Your task to perform on an android device: turn on data saver in the chrome app Image 0: 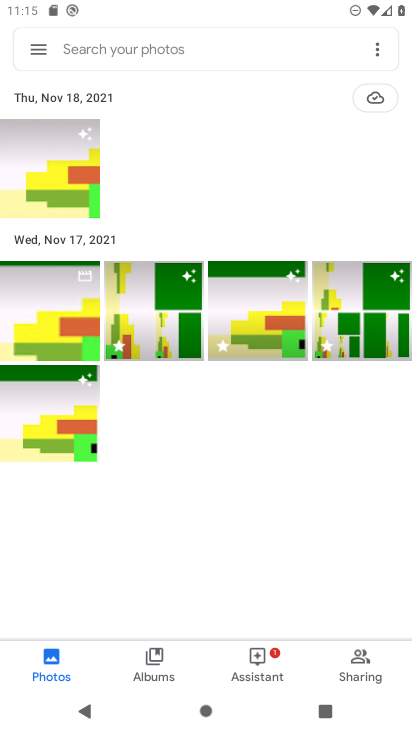
Step 0: press home button
Your task to perform on an android device: turn on data saver in the chrome app Image 1: 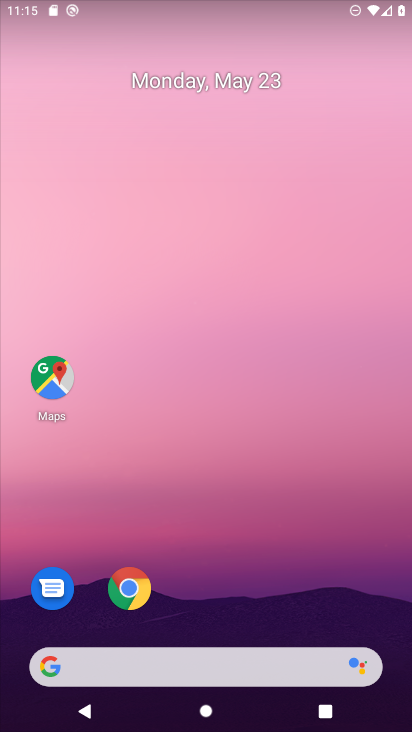
Step 1: click (133, 583)
Your task to perform on an android device: turn on data saver in the chrome app Image 2: 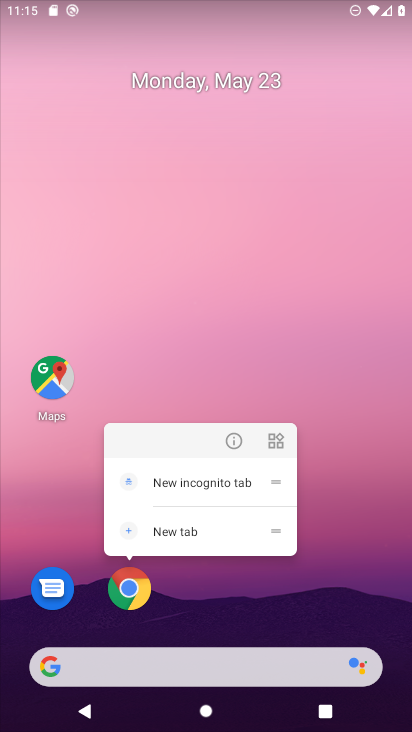
Step 2: click (128, 600)
Your task to perform on an android device: turn on data saver in the chrome app Image 3: 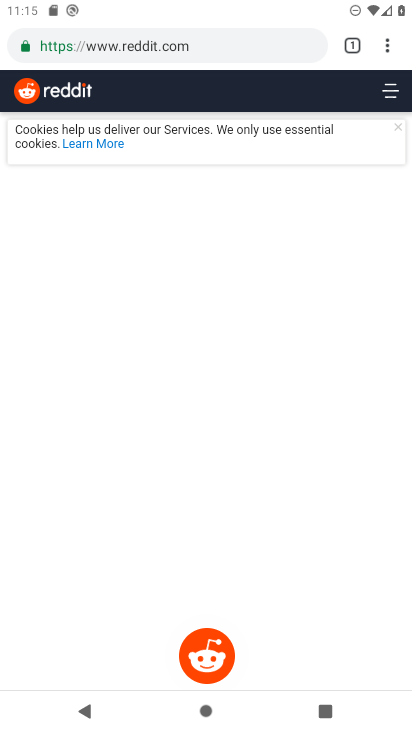
Step 3: click (394, 44)
Your task to perform on an android device: turn on data saver in the chrome app Image 4: 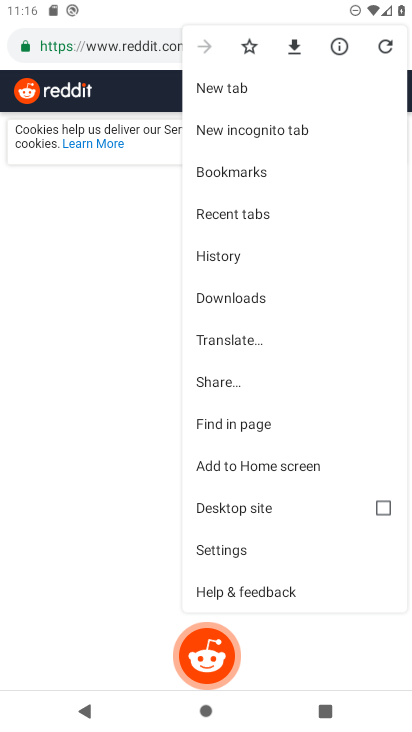
Step 4: click (225, 562)
Your task to perform on an android device: turn on data saver in the chrome app Image 5: 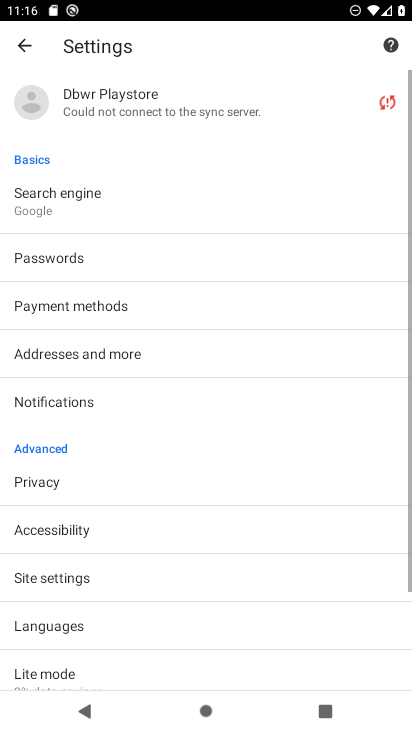
Step 5: drag from (213, 544) to (226, 192)
Your task to perform on an android device: turn on data saver in the chrome app Image 6: 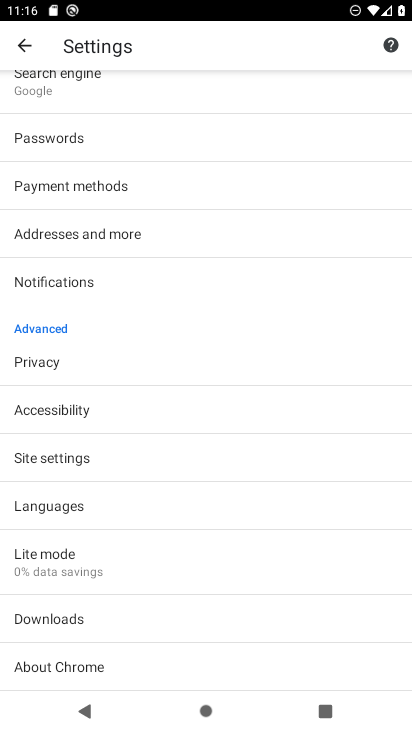
Step 6: click (52, 570)
Your task to perform on an android device: turn on data saver in the chrome app Image 7: 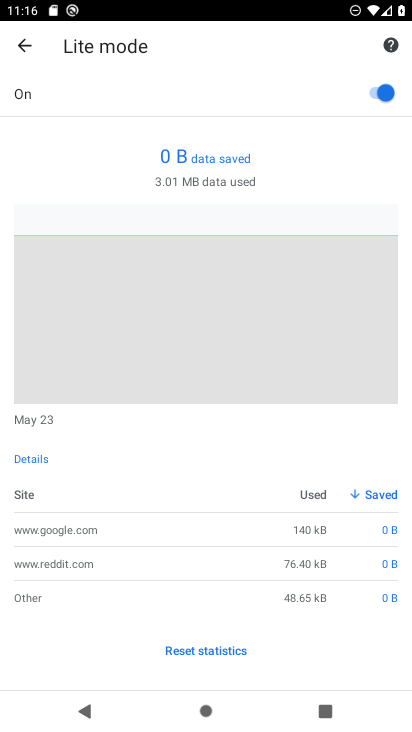
Step 7: task complete